Your task to perform on an android device: add a contact Image 0: 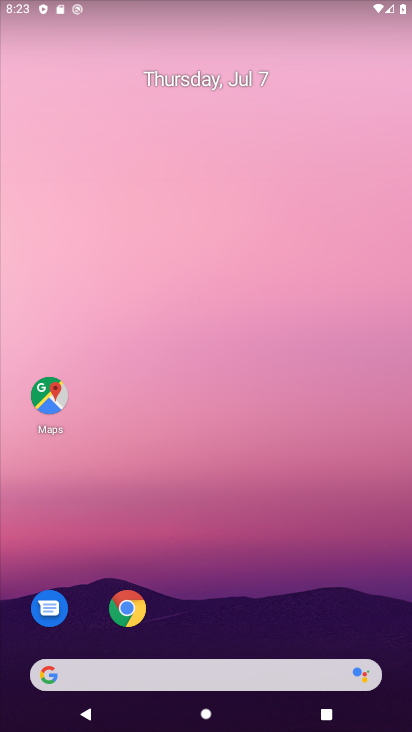
Step 0: drag from (262, 708) to (412, 434)
Your task to perform on an android device: add a contact Image 1: 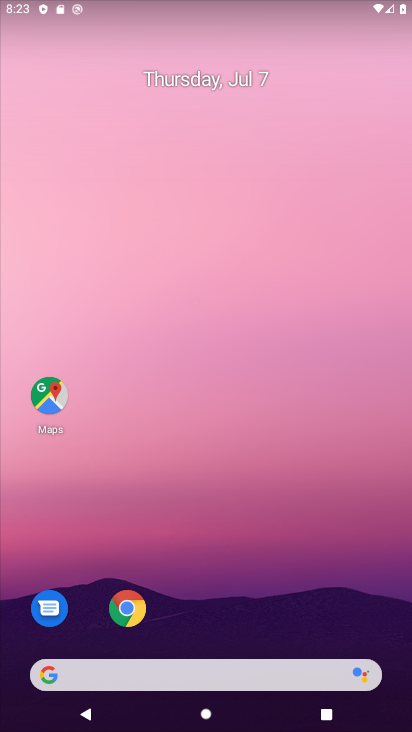
Step 1: click (248, 329)
Your task to perform on an android device: add a contact Image 2: 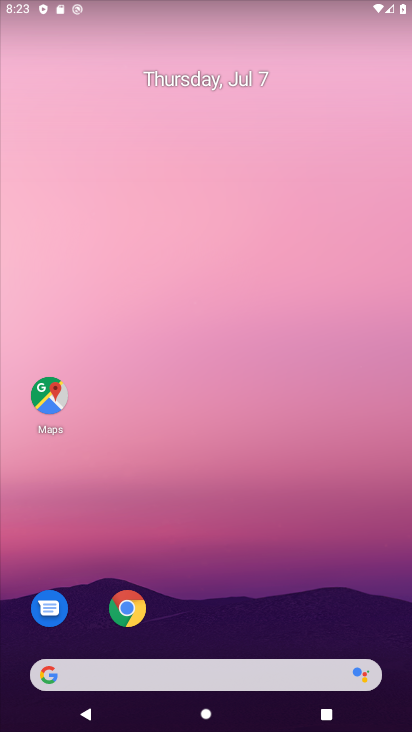
Step 2: click (249, 328)
Your task to perform on an android device: add a contact Image 3: 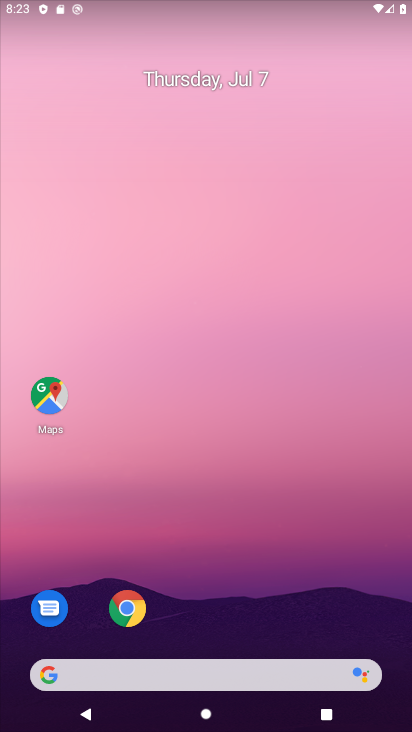
Step 3: drag from (271, 586) to (140, 72)
Your task to perform on an android device: add a contact Image 4: 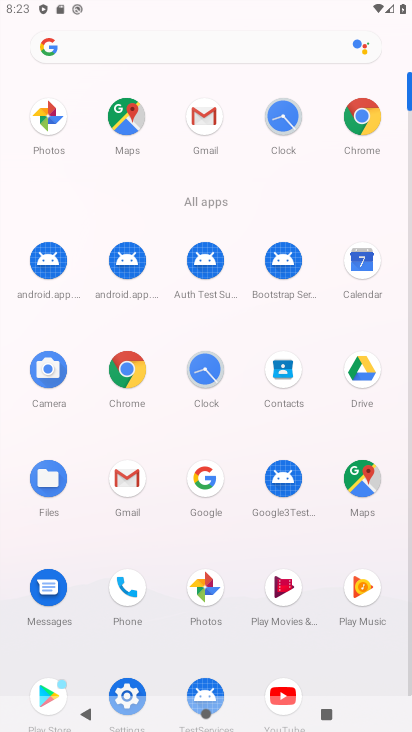
Step 4: click (289, 376)
Your task to perform on an android device: add a contact Image 5: 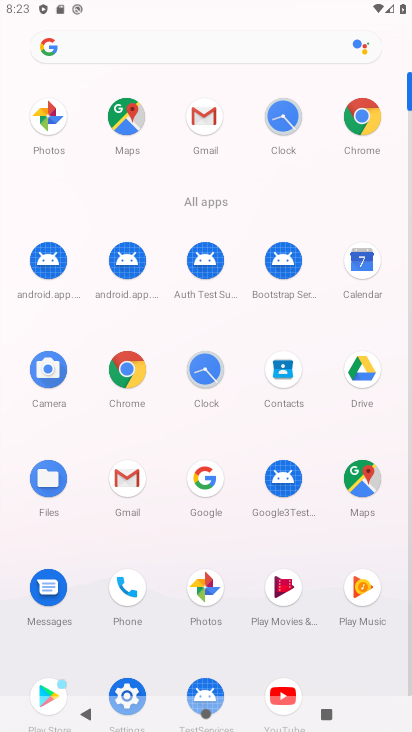
Step 5: click (293, 374)
Your task to perform on an android device: add a contact Image 6: 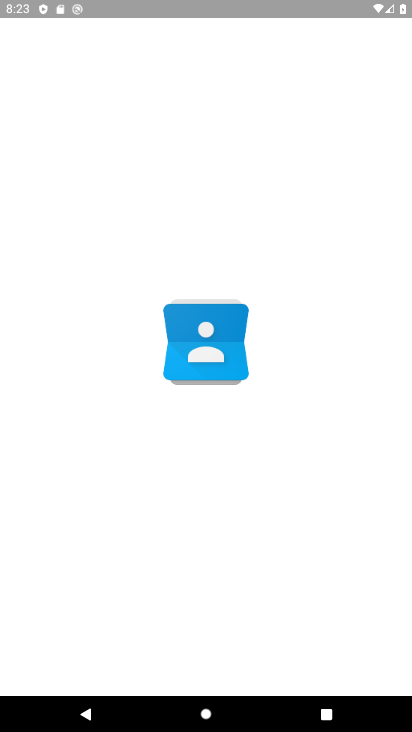
Step 6: click (297, 384)
Your task to perform on an android device: add a contact Image 7: 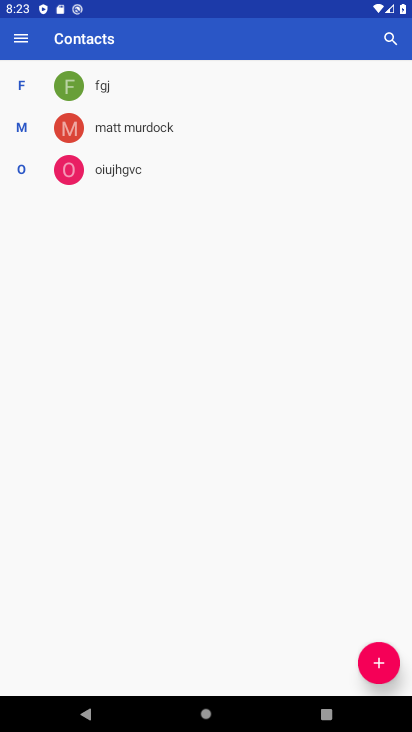
Step 7: press back button
Your task to perform on an android device: add a contact Image 8: 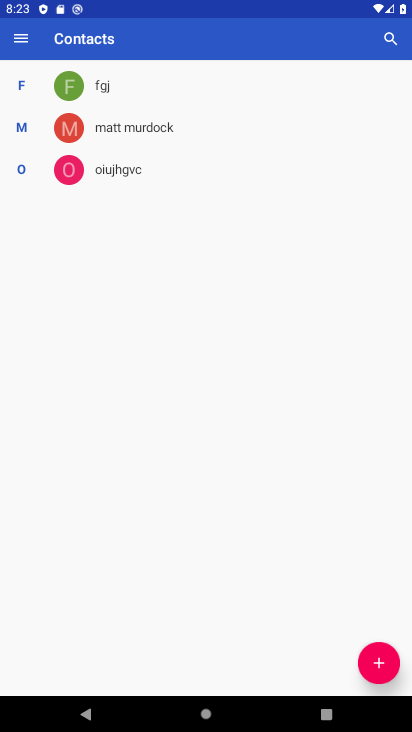
Step 8: press back button
Your task to perform on an android device: add a contact Image 9: 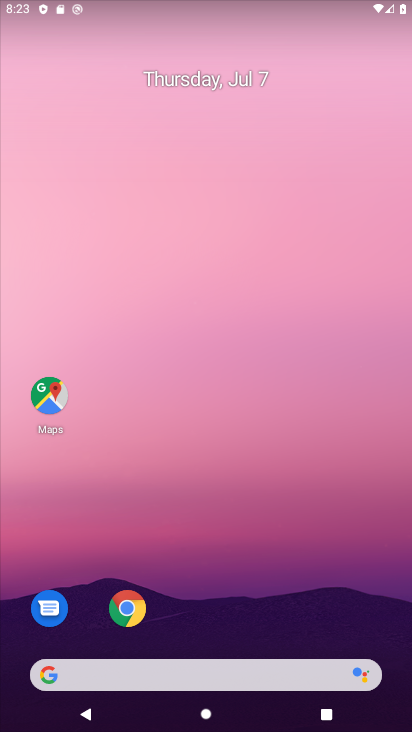
Step 9: drag from (242, 662) to (140, 3)
Your task to perform on an android device: add a contact Image 10: 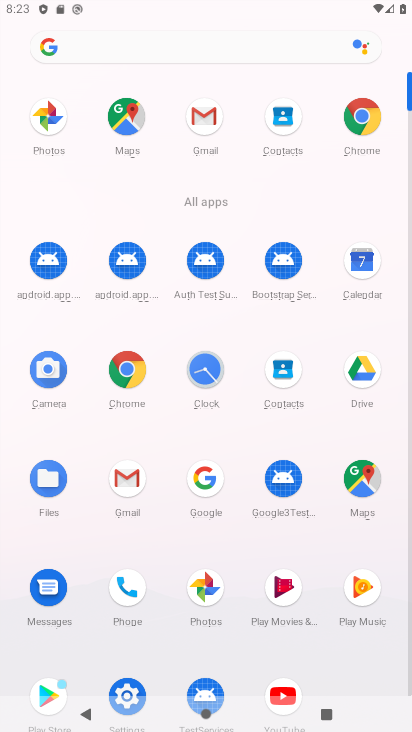
Step 10: click (290, 124)
Your task to perform on an android device: add a contact Image 11: 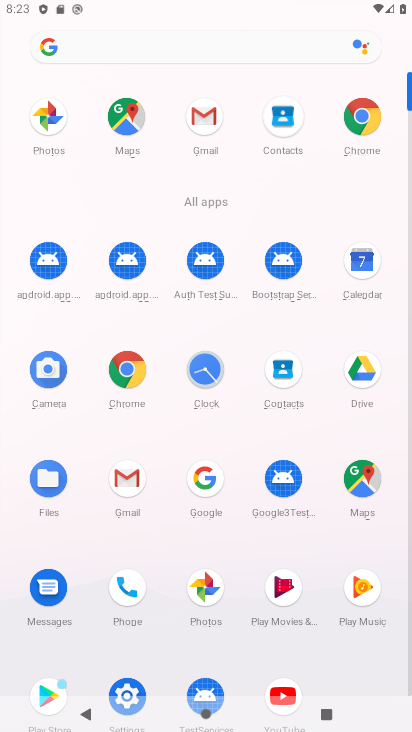
Step 11: click (293, 126)
Your task to perform on an android device: add a contact Image 12: 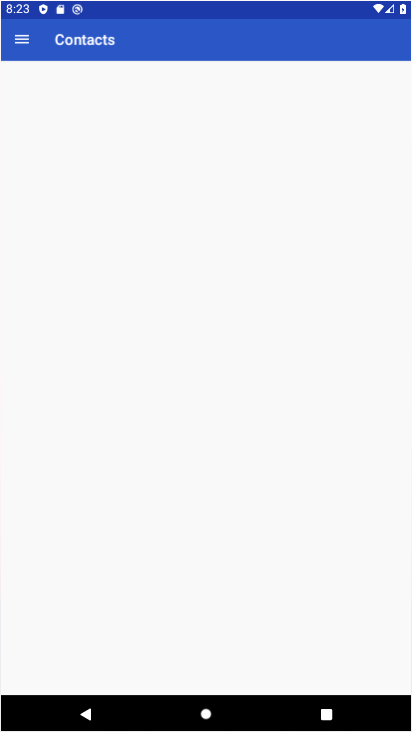
Step 12: click (294, 128)
Your task to perform on an android device: add a contact Image 13: 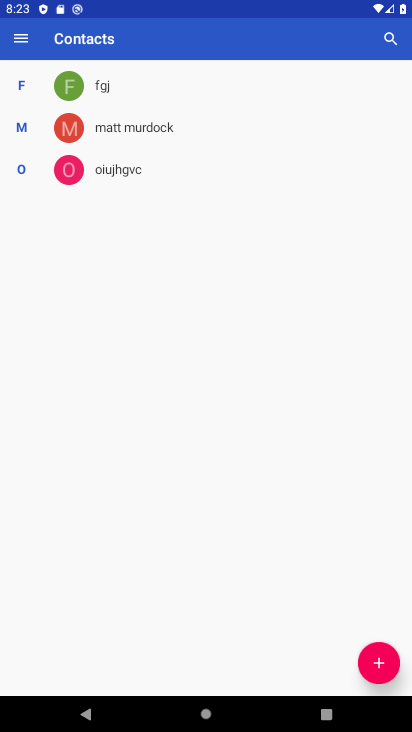
Step 13: click (381, 662)
Your task to perform on an android device: add a contact Image 14: 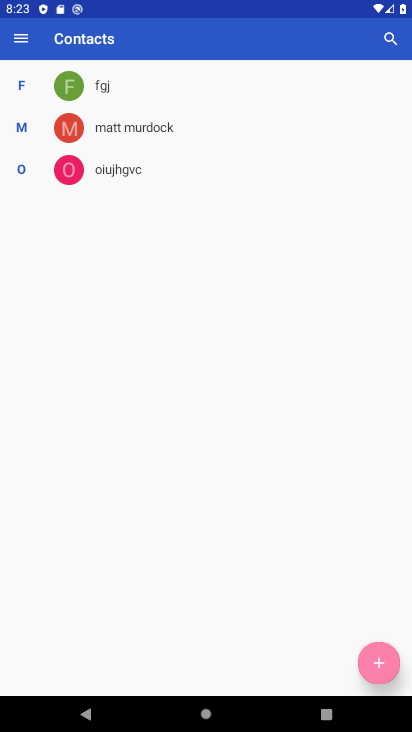
Step 14: click (381, 661)
Your task to perform on an android device: add a contact Image 15: 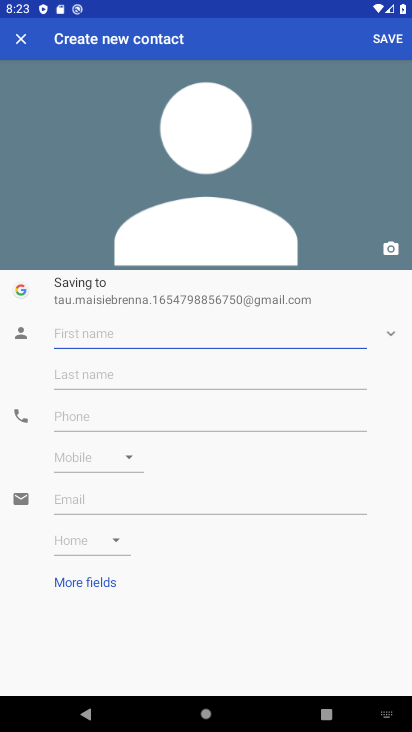
Step 15: click (59, 348)
Your task to perform on an android device: add a contact Image 16: 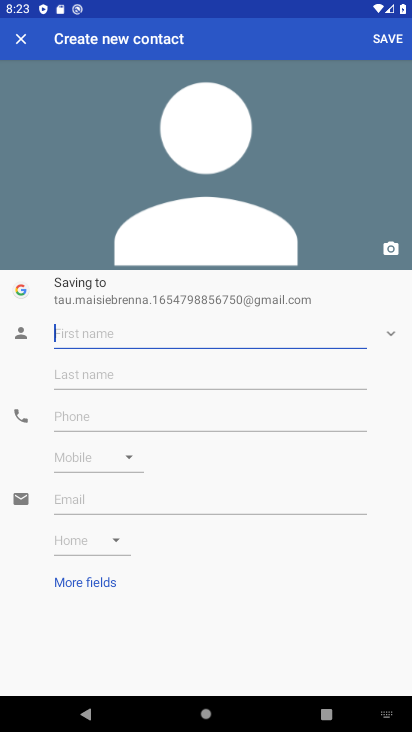
Step 16: type "vjhb hkj"
Your task to perform on an android device: add a contact Image 17: 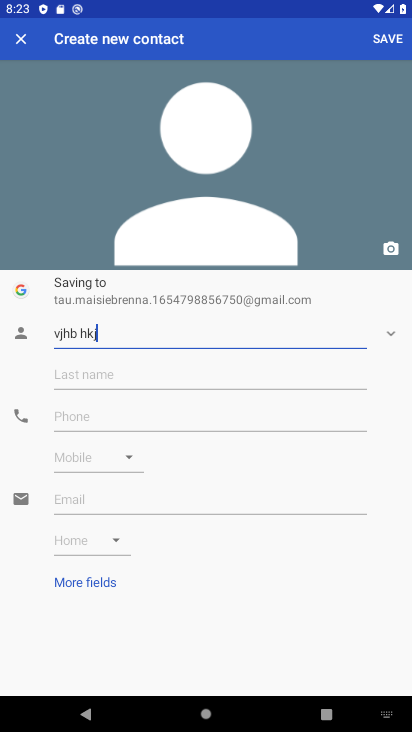
Step 17: click (65, 423)
Your task to perform on an android device: add a contact Image 18: 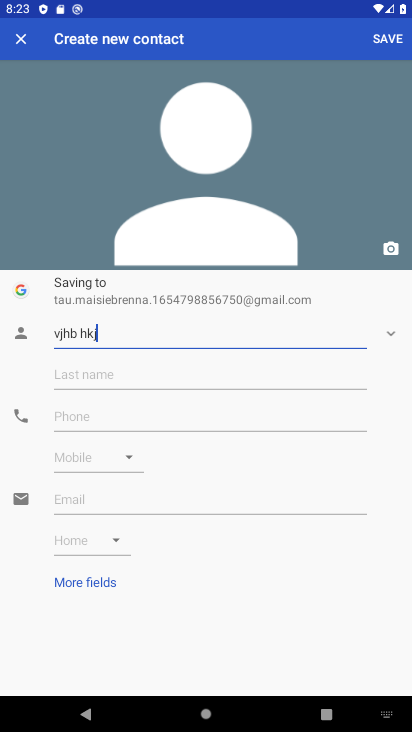
Step 18: click (65, 423)
Your task to perform on an android device: add a contact Image 19: 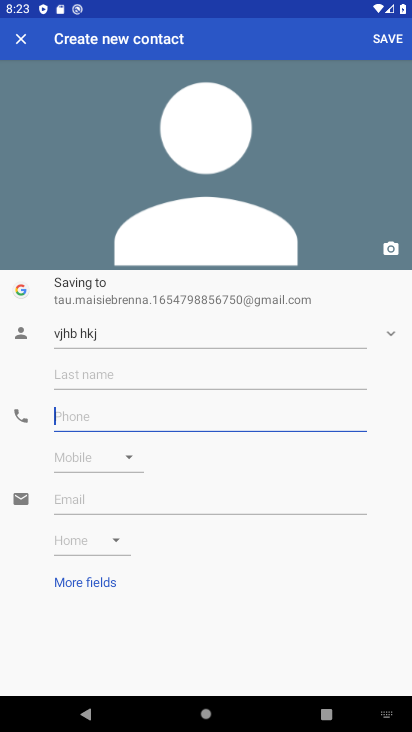
Step 19: click (65, 423)
Your task to perform on an android device: add a contact Image 20: 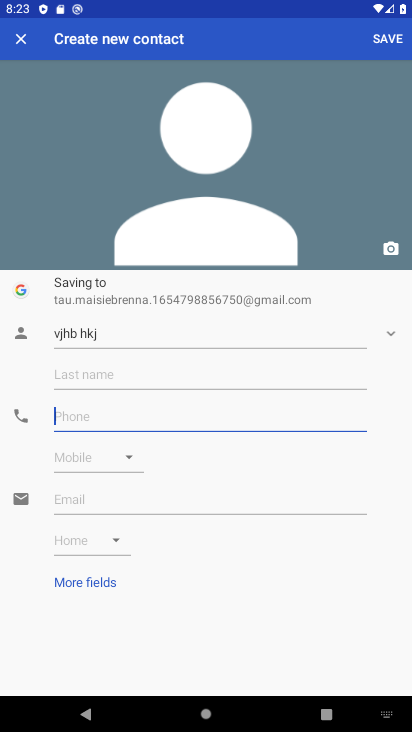
Step 20: click (65, 423)
Your task to perform on an android device: add a contact Image 21: 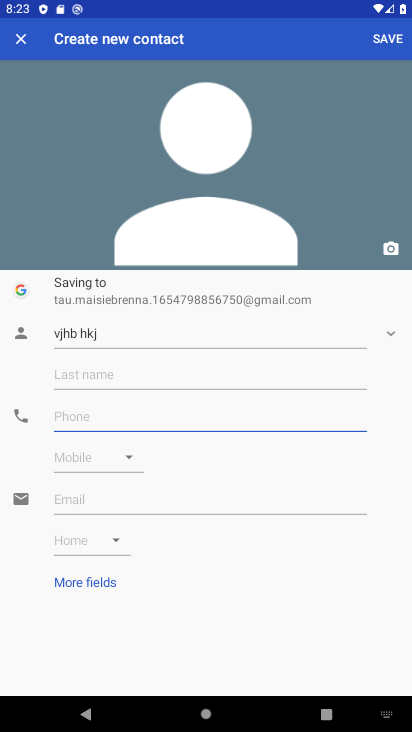
Step 21: click (65, 423)
Your task to perform on an android device: add a contact Image 22: 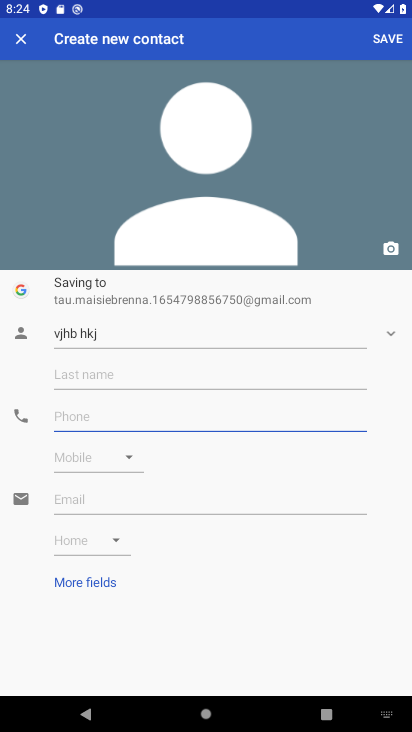
Step 22: type "76 7687uu8990"
Your task to perform on an android device: add a contact Image 23: 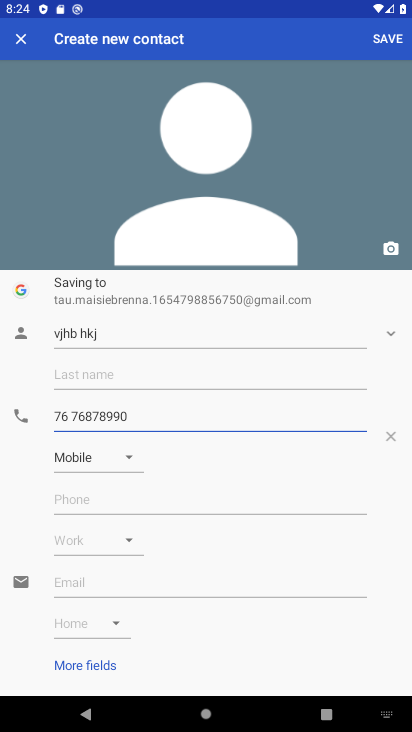
Step 23: click (385, 34)
Your task to perform on an android device: add a contact Image 24: 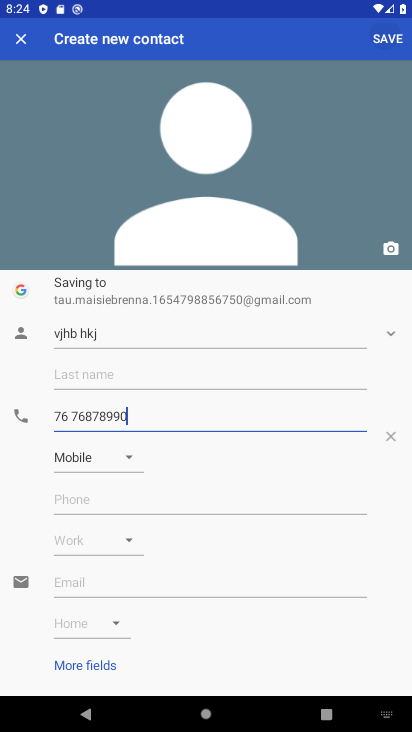
Step 24: click (385, 34)
Your task to perform on an android device: add a contact Image 25: 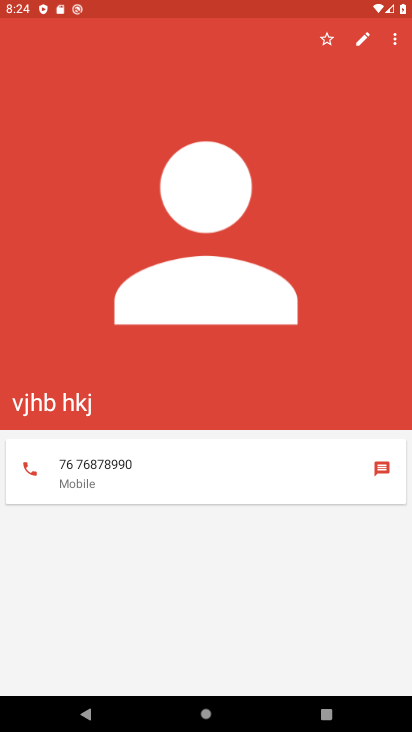
Step 25: task complete